Your task to perform on an android device: open app "Move to iOS" (install if not already installed) Image 0: 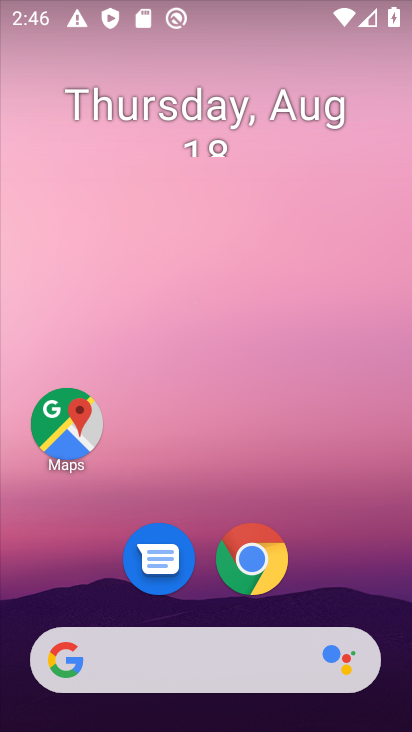
Step 0: drag from (291, 516) to (255, 123)
Your task to perform on an android device: open app "Move to iOS" (install if not already installed) Image 1: 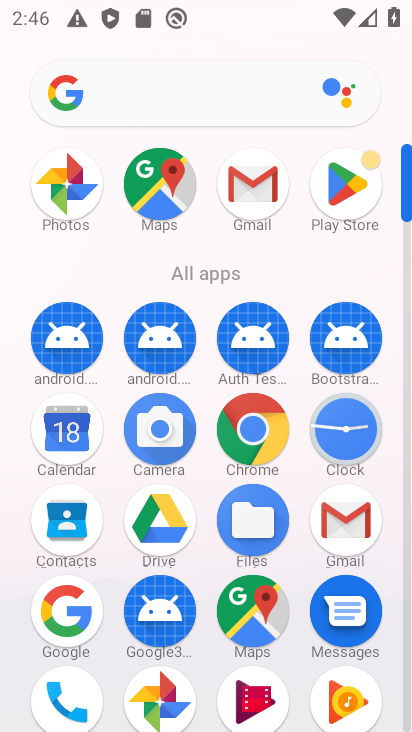
Step 1: click (344, 189)
Your task to perform on an android device: open app "Move to iOS" (install if not already installed) Image 2: 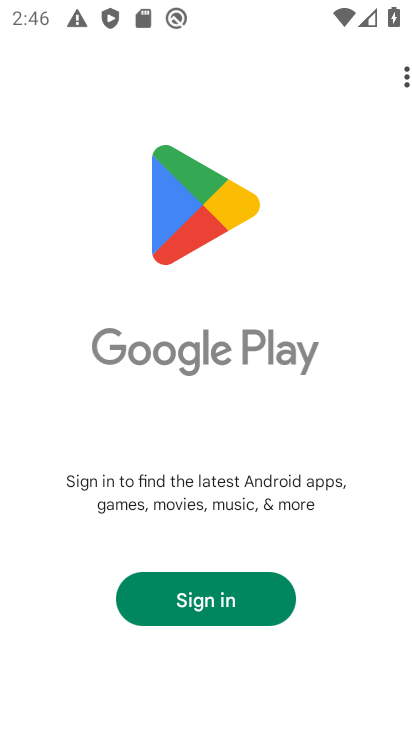
Step 2: click (228, 608)
Your task to perform on an android device: open app "Move to iOS" (install if not already installed) Image 3: 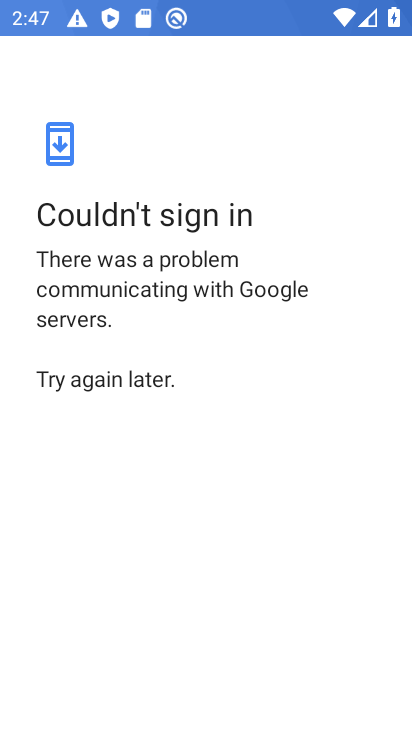
Step 3: task complete